Your task to perform on an android device: toggle location history Image 0: 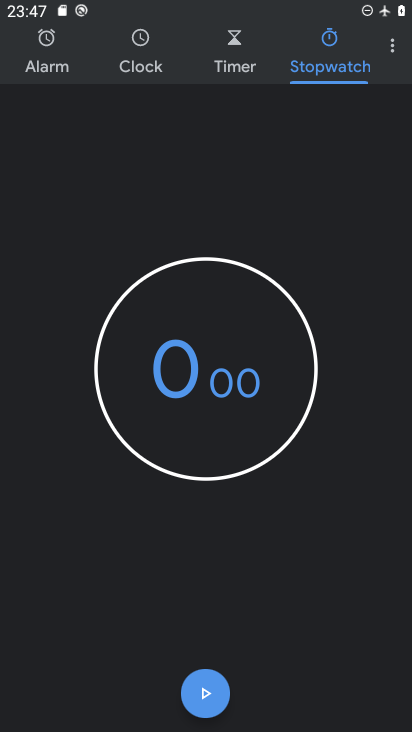
Step 0: press home button
Your task to perform on an android device: toggle location history Image 1: 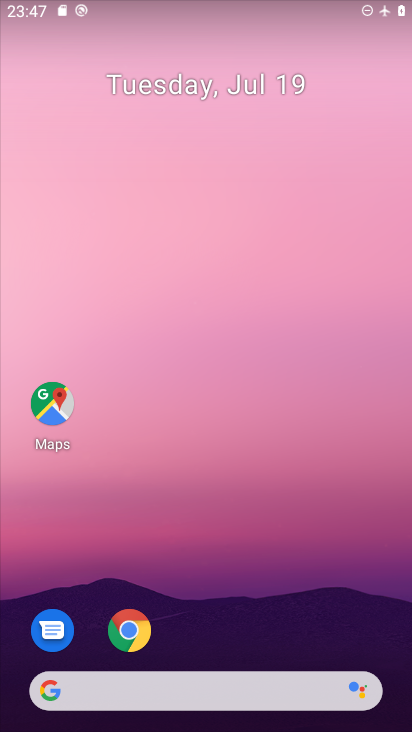
Step 1: drag from (191, 614) to (152, 175)
Your task to perform on an android device: toggle location history Image 2: 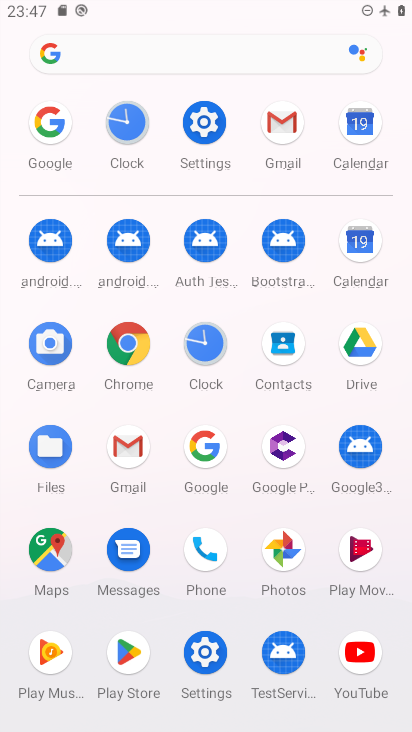
Step 2: click (184, 108)
Your task to perform on an android device: toggle location history Image 3: 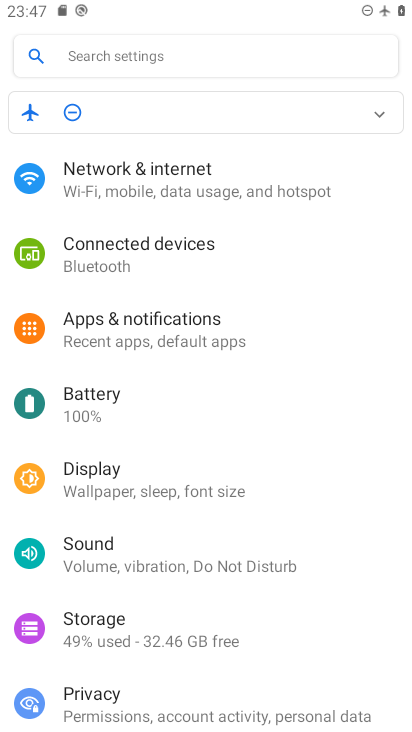
Step 3: drag from (186, 661) to (192, 327)
Your task to perform on an android device: toggle location history Image 4: 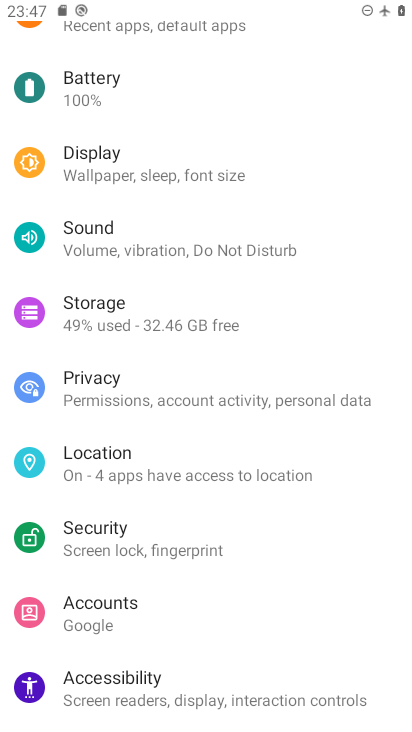
Step 4: click (112, 462)
Your task to perform on an android device: toggle location history Image 5: 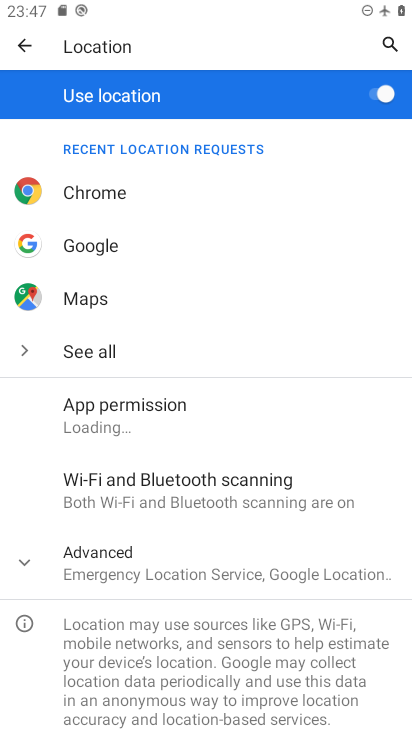
Step 5: click (172, 584)
Your task to perform on an android device: toggle location history Image 6: 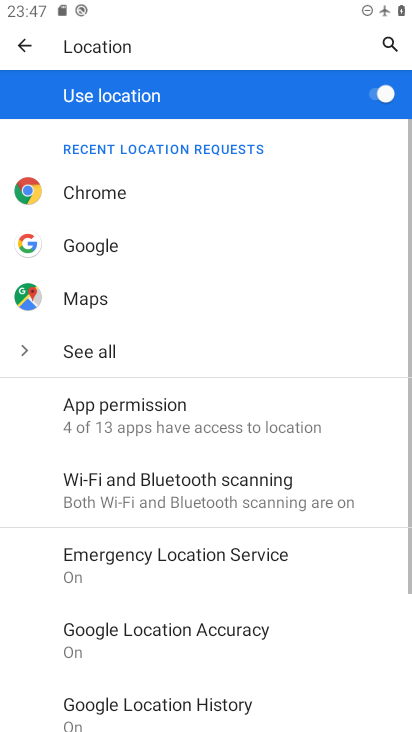
Step 6: drag from (173, 582) to (179, 282)
Your task to perform on an android device: toggle location history Image 7: 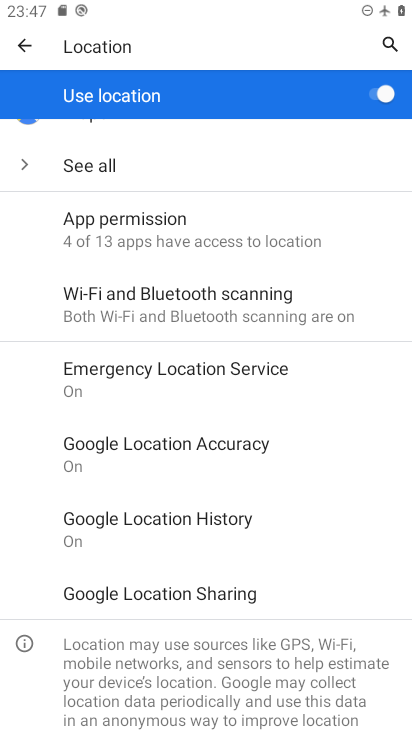
Step 7: click (217, 514)
Your task to perform on an android device: toggle location history Image 8: 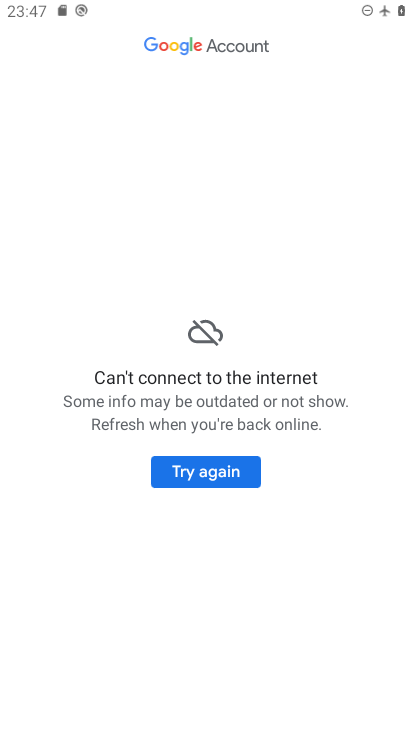
Step 8: task complete